Your task to perform on an android device: all mails in gmail Image 0: 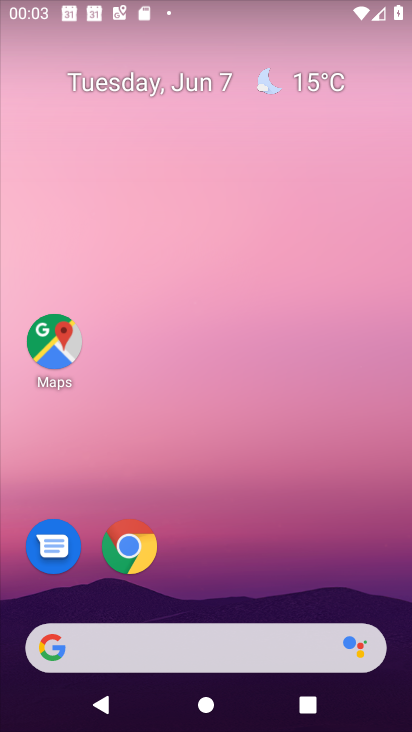
Step 0: drag from (221, 565) to (307, 192)
Your task to perform on an android device: all mails in gmail Image 1: 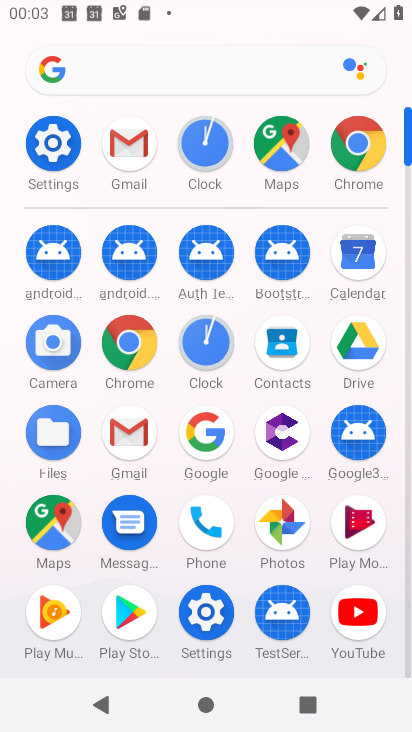
Step 1: click (124, 439)
Your task to perform on an android device: all mails in gmail Image 2: 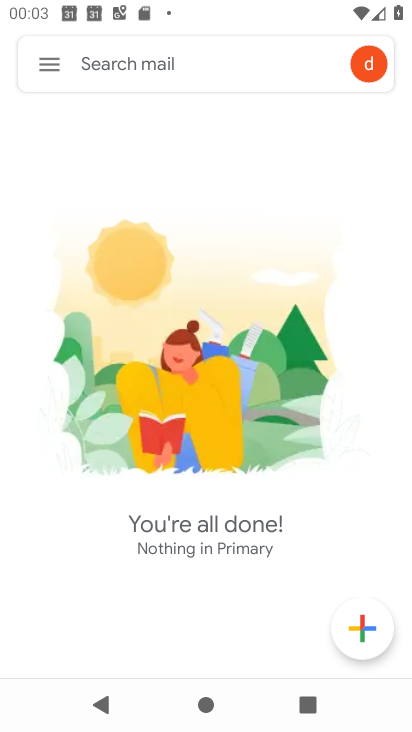
Step 2: click (38, 69)
Your task to perform on an android device: all mails in gmail Image 3: 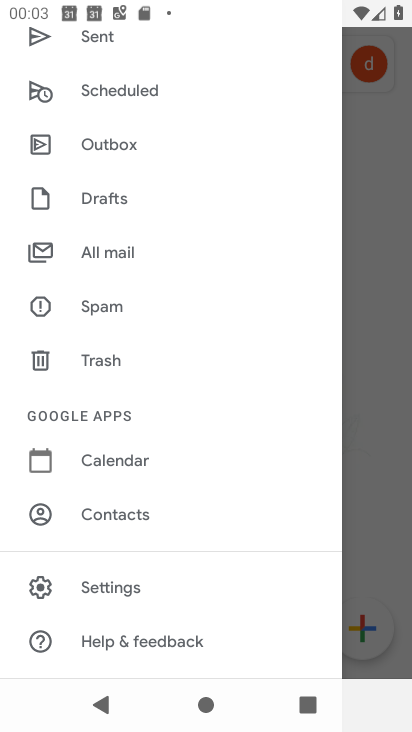
Step 3: click (123, 256)
Your task to perform on an android device: all mails in gmail Image 4: 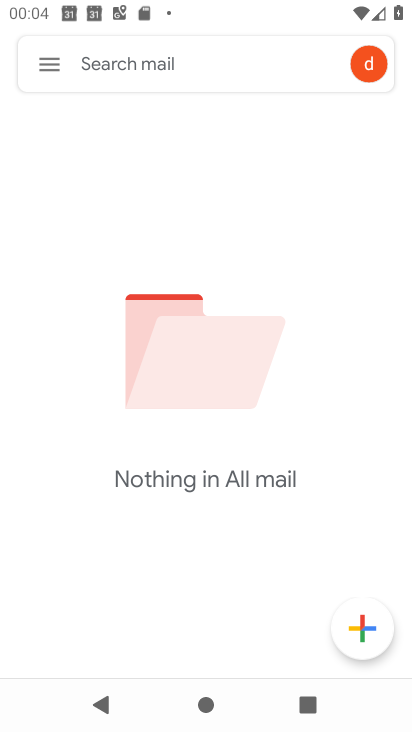
Step 4: task complete